Your task to perform on an android device: What's the weather going to be this weekend? Image 0: 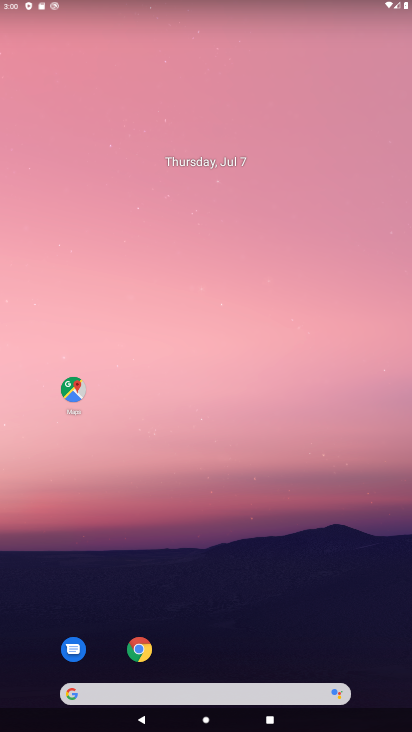
Step 0: drag from (274, 644) to (321, 343)
Your task to perform on an android device: What's the weather going to be this weekend? Image 1: 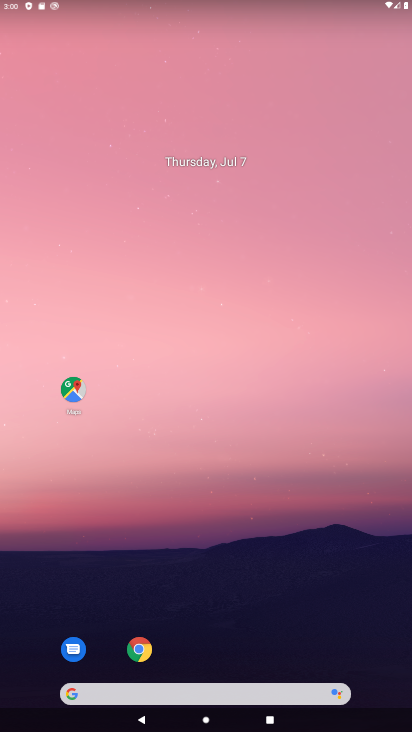
Step 1: drag from (249, 596) to (320, 88)
Your task to perform on an android device: What's the weather going to be this weekend? Image 2: 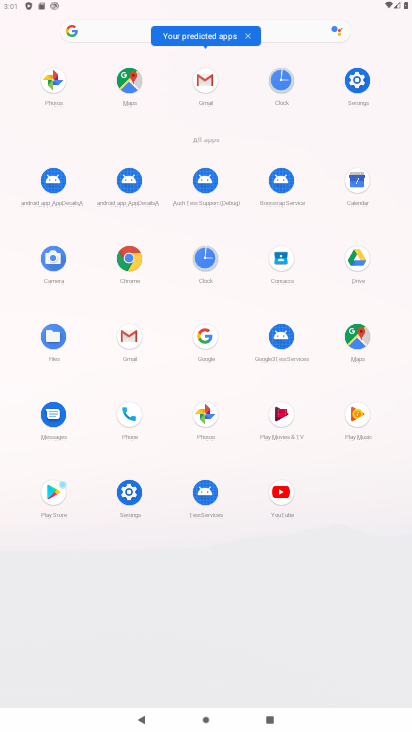
Step 2: click (206, 348)
Your task to perform on an android device: What's the weather going to be this weekend? Image 3: 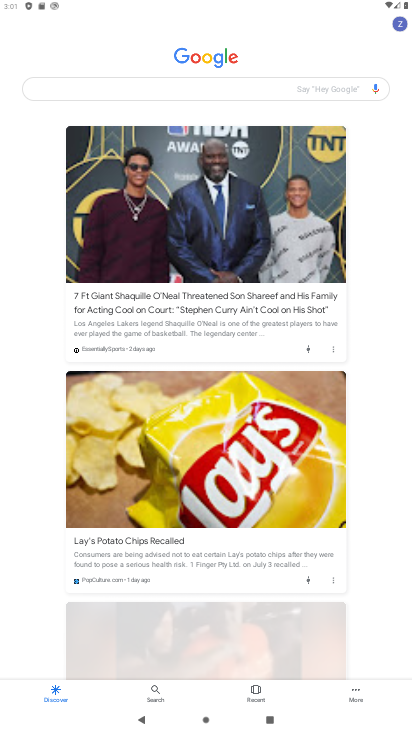
Step 3: click (248, 90)
Your task to perform on an android device: What's the weather going to be this weekend? Image 4: 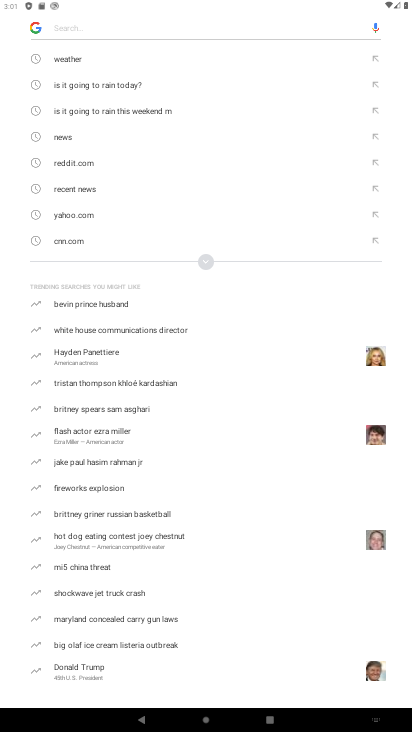
Step 4: type "weather"
Your task to perform on an android device: What's the weather going to be this weekend? Image 5: 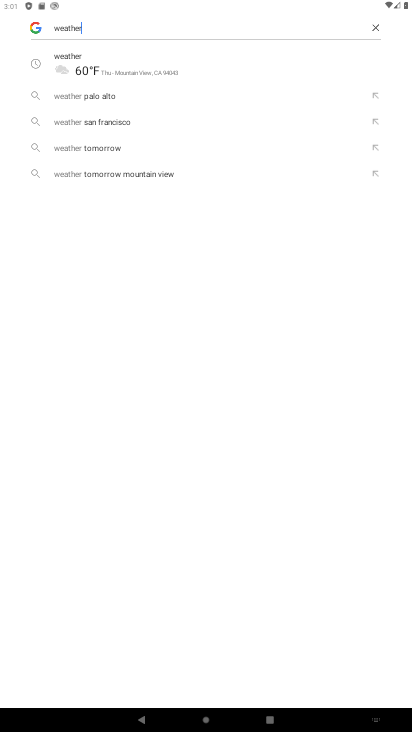
Step 5: type " weekend"
Your task to perform on an android device: What's the weather going to be this weekend? Image 6: 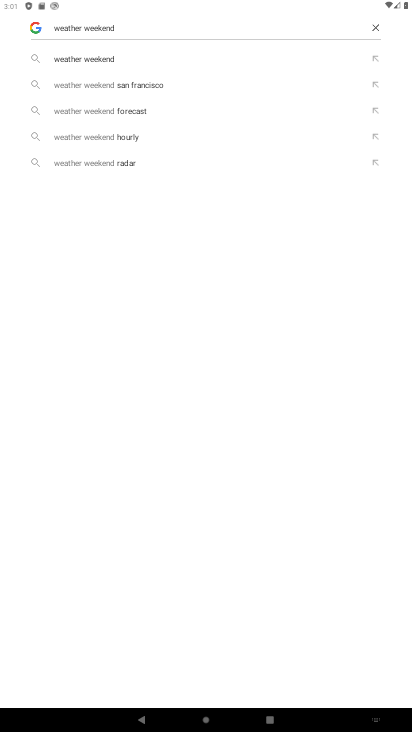
Step 6: click (195, 56)
Your task to perform on an android device: What's the weather going to be this weekend? Image 7: 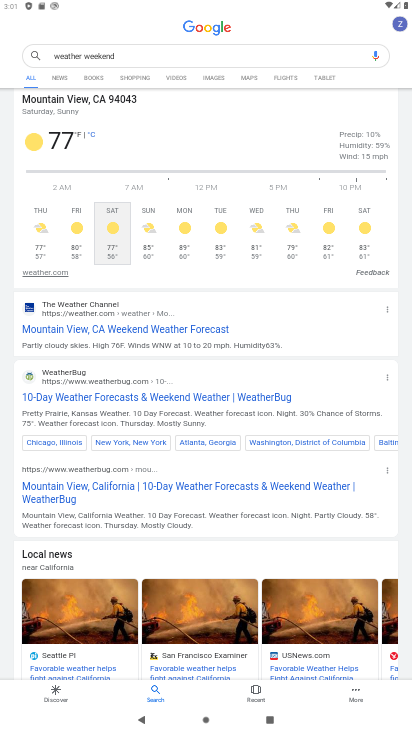
Step 7: click (177, 131)
Your task to perform on an android device: What's the weather going to be this weekend? Image 8: 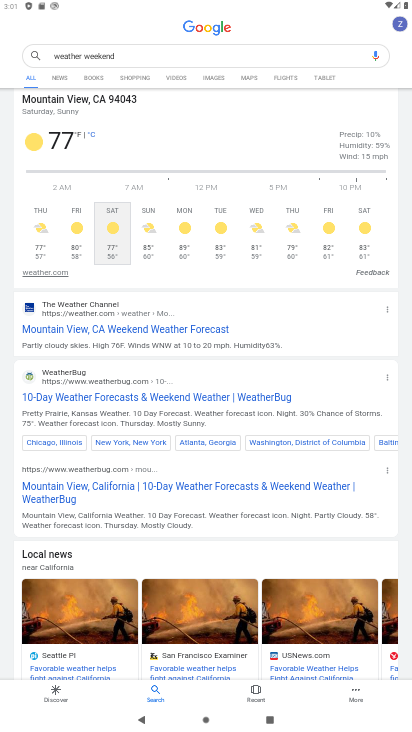
Step 8: task complete